Your task to perform on an android device: Show me popular videos on Youtube Image 0: 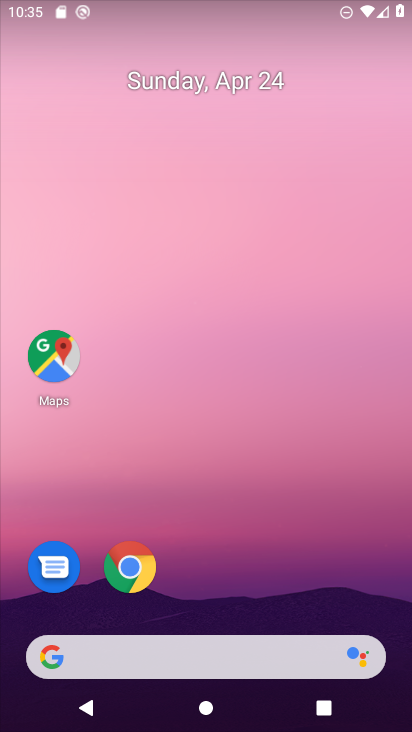
Step 0: drag from (145, 615) to (129, 202)
Your task to perform on an android device: Show me popular videos on Youtube Image 1: 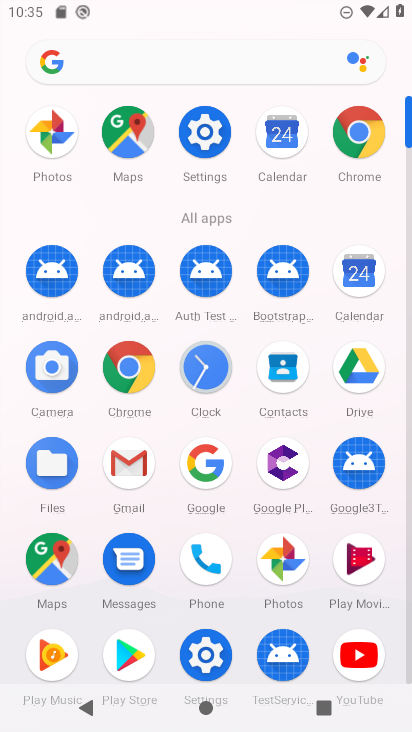
Step 1: click (350, 656)
Your task to perform on an android device: Show me popular videos on Youtube Image 2: 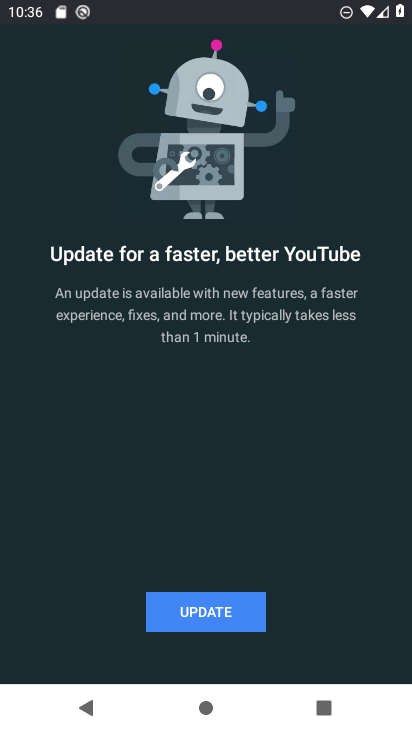
Step 2: click (236, 617)
Your task to perform on an android device: Show me popular videos on Youtube Image 3: 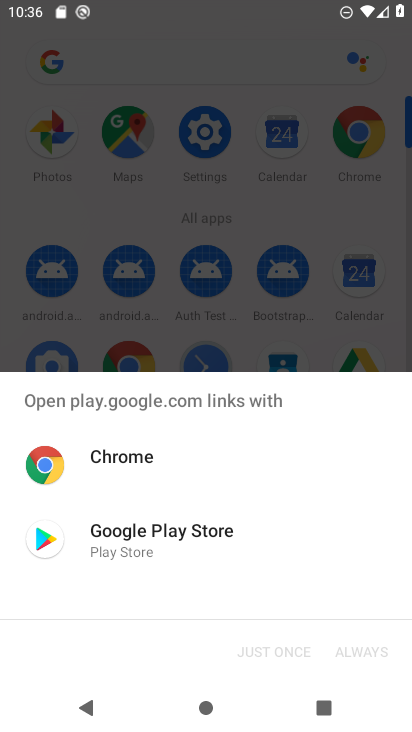
Step 3: click (157, 537)
Your task to perform on an android device: Show me popular videos on Youtube Image 4: 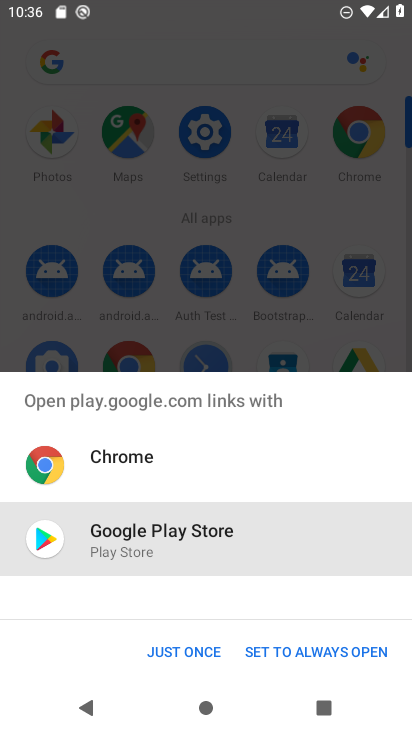
Step 4: click (184, 649)
Your task to perform on an android device: Show me popular videos on Youtube Image 5: 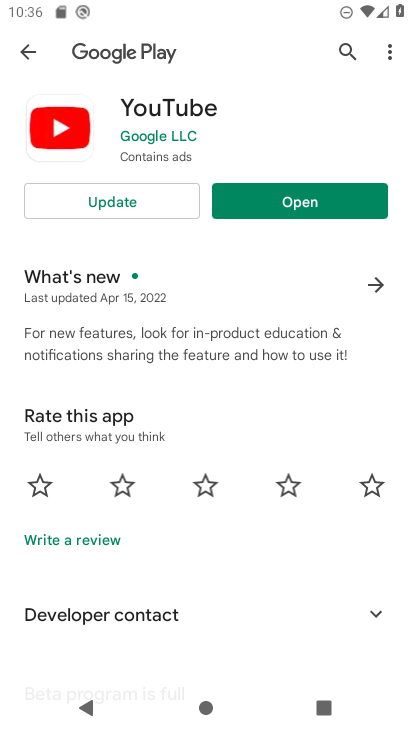
Step 5: click (119, 195)
Your task to perform on an android device: Show me popular videos on Youtube Image 6: 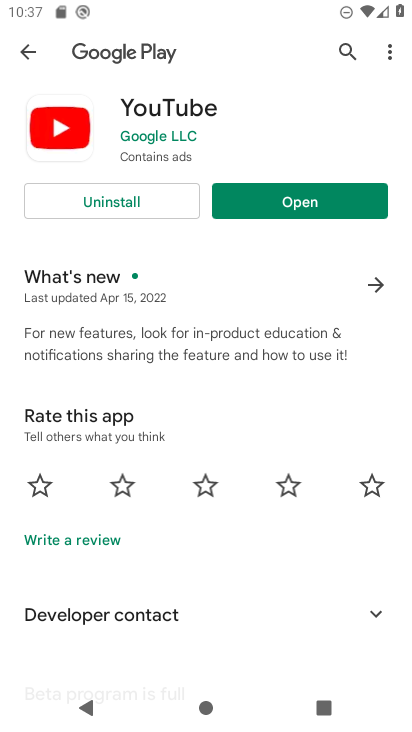
Step 6: click (278, 200)
Your task to perform on an android device: Show me popular videos on Youtube Image 7: 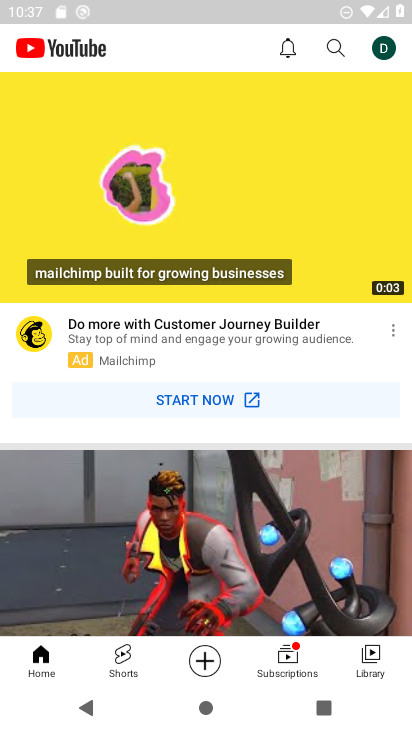
Step 7: click (330, 50)
Your task to perform on an android device: Show me popular videos on Youtube Image 8: 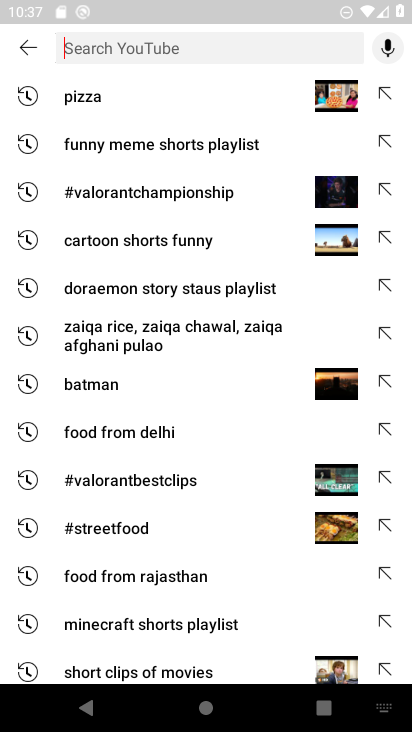
Step 8: type "popular videos"
Your task to perform on an android device: Show me popular videos on Youtube Image 9: 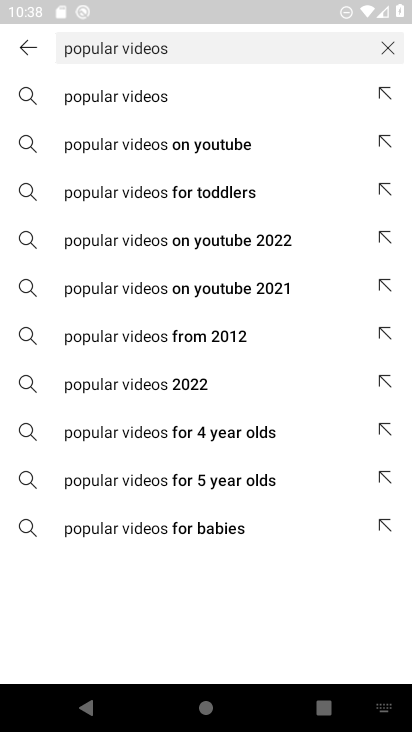
Step 9: click (65, 93)
Your task to perform on an android device: Show me popular videos on Youtube Image 10: 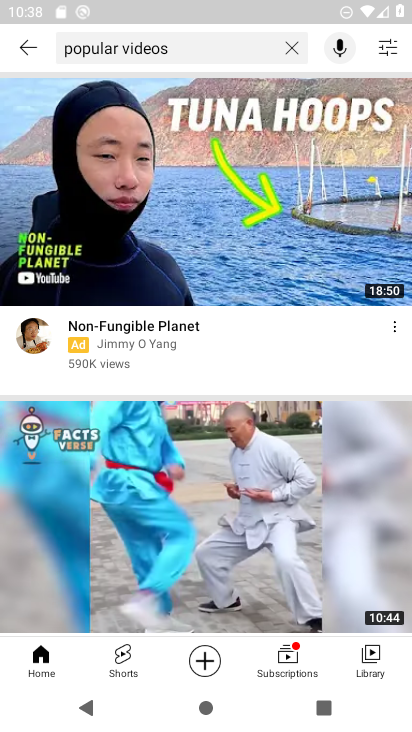
Step 10: task complete